Your task to perform on an android device: open wifi settings Image 0: 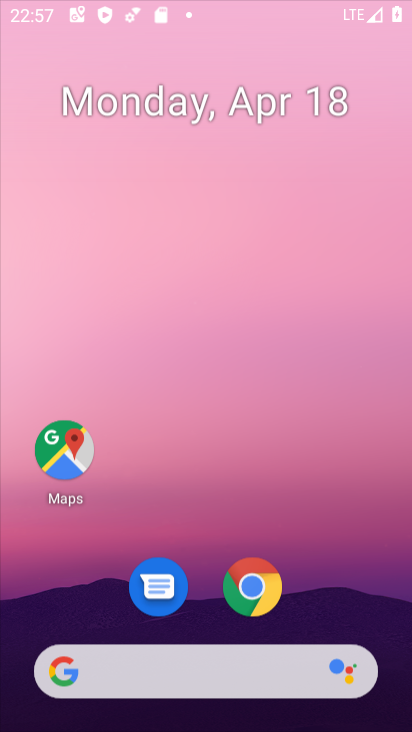
Step 0: drag from (354, 364) to (345, 154)
Your task to perform on an android device: open wifi settings Image 1: 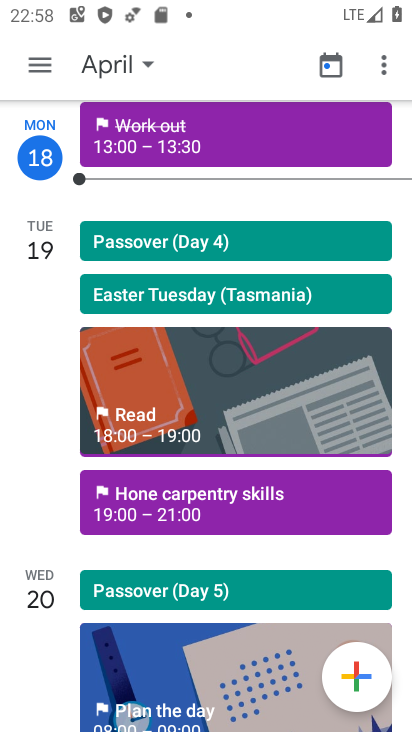
Step 1: press home button
Your task to perform on an android device: open wifi settings Image 2: 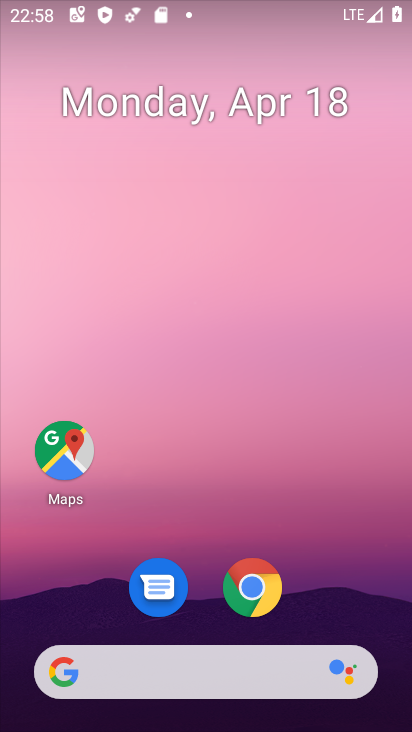
Step 2: drag from (361, 516) to (367, 130)
Your task to perform on an android device: open wifi settings Image 3: 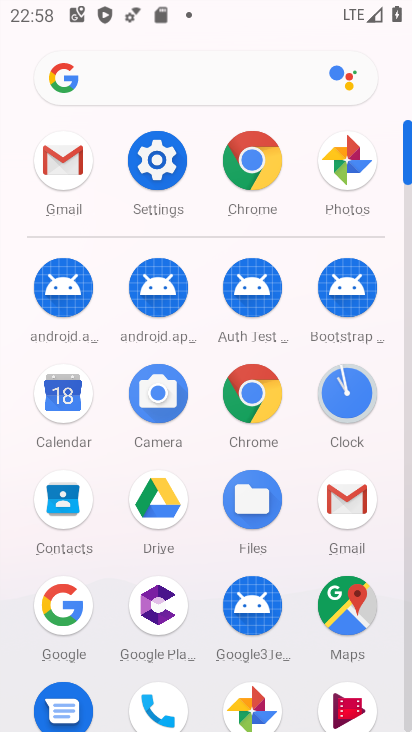
Step 3: click (155, 164)
Your task to perform on an android device: open wifi settings Image 4: 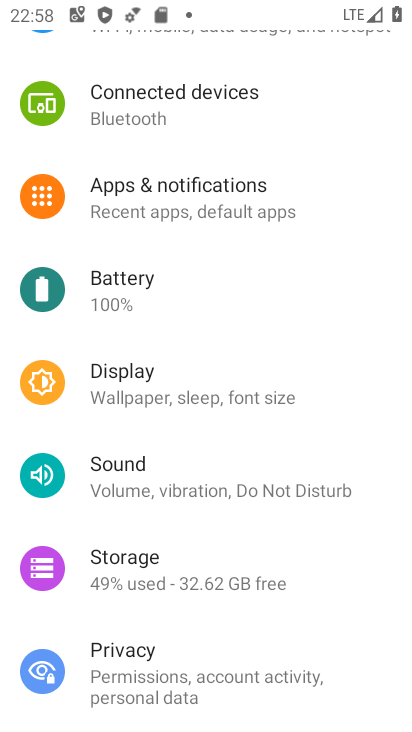
Step 4: drag from (285, 134) to (301, 581)
Your task to perform on an android device: open wifi settings Image 5: 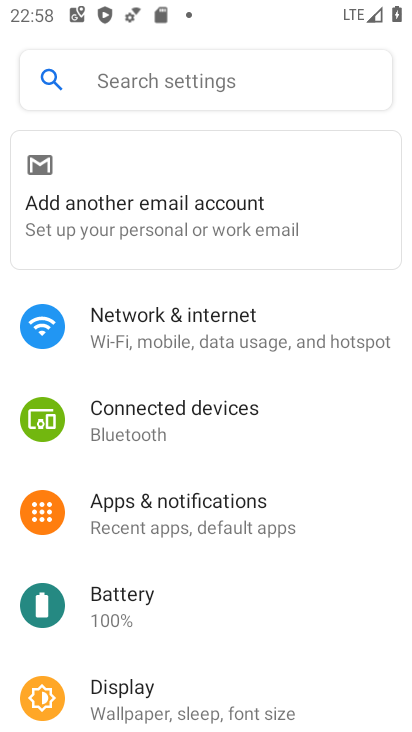
Step 5: click (316, 319)
Your task to perform on an android device: open wifi settings Image 6: 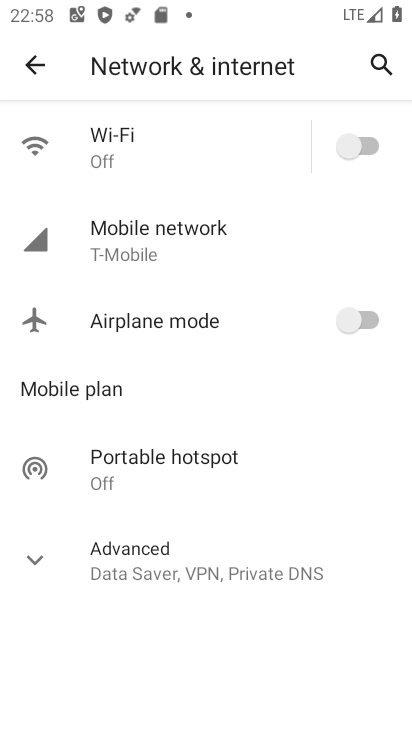
Step 6: click (217, 157)
Your task to perform on an android device: open wifi settings Image 7: 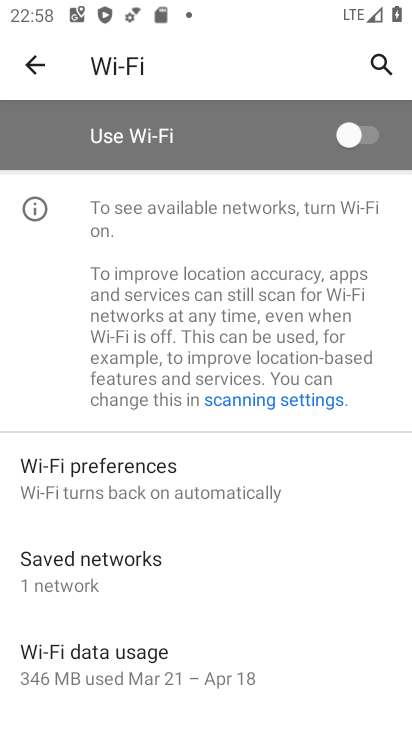
Step 7: task complete